Your task to perform on an android device: Add "logitech g502" to the cart on amazon, then select checkout. Image 0: 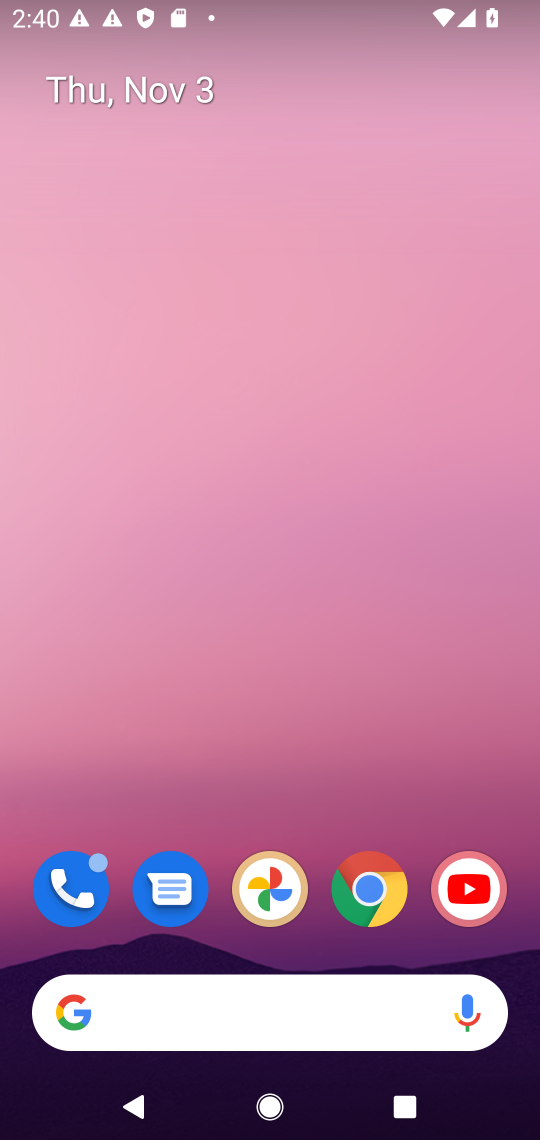
Step 0: click (367, 880)
Your task to perform on an android device: Add "logitech g502" to the cart on amazon, then select checkout. Image 1: 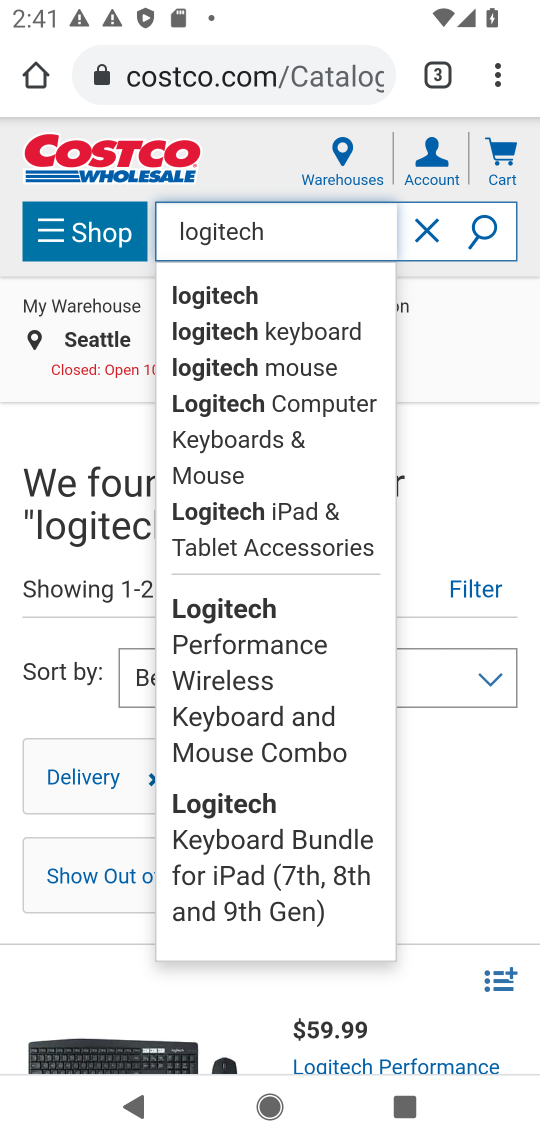
Step 1: click (426, 231)
Your task to perform on an android device: Add "logitech g502" to the cart on amazon, then select checkout. Image 2: 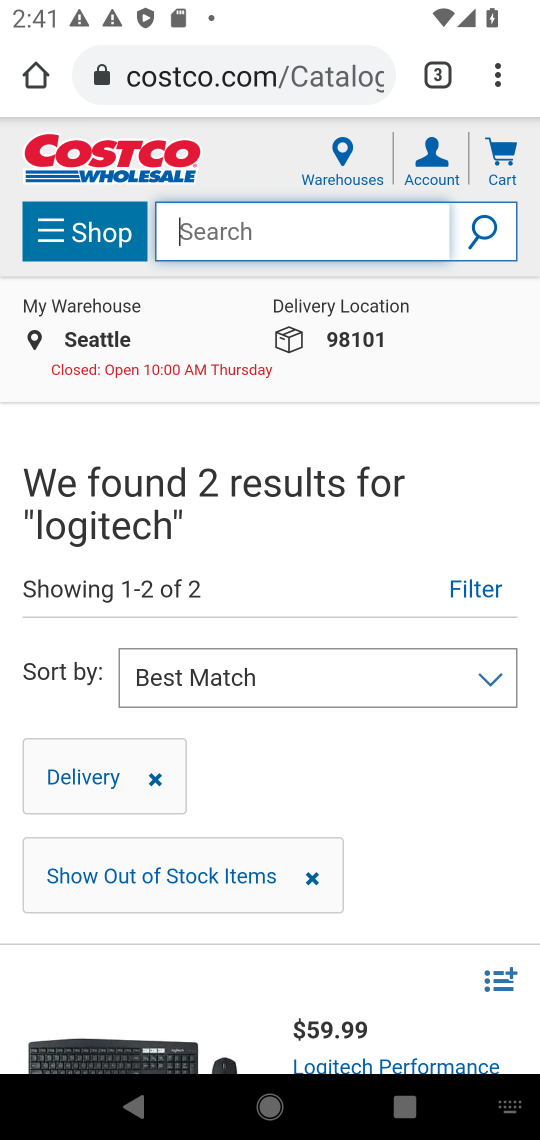
Step 2: click (261, 228)
Your task to perform on an android device: Add "logitech g502" to the cart on amazon, then select checkout. Image 3: 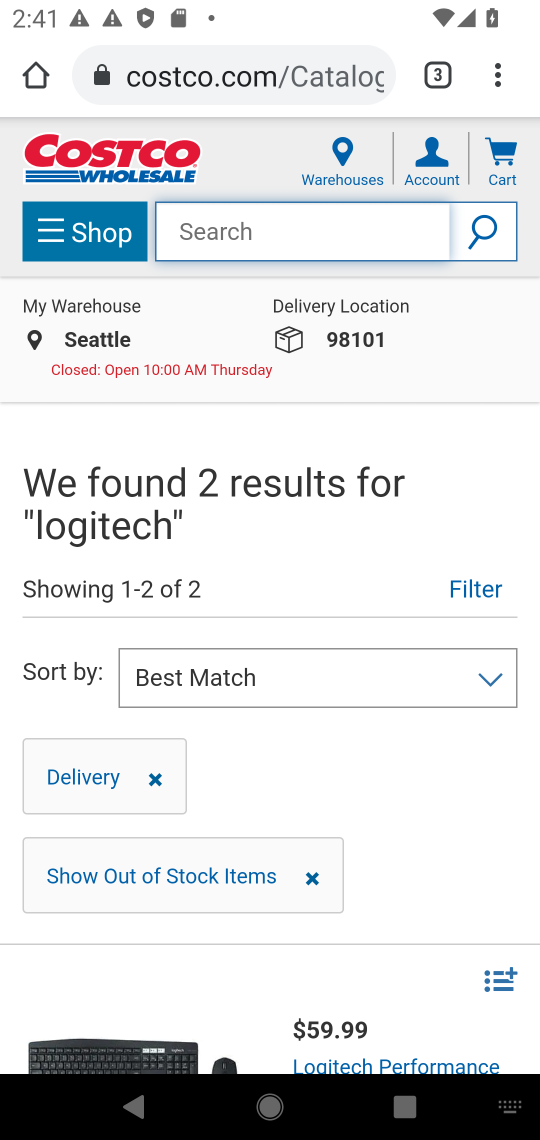
Step 3: type "amzon"
Your task to perform on an android device: Add "logitech g502" to the cart on amazon, then select checkout. Image 4: 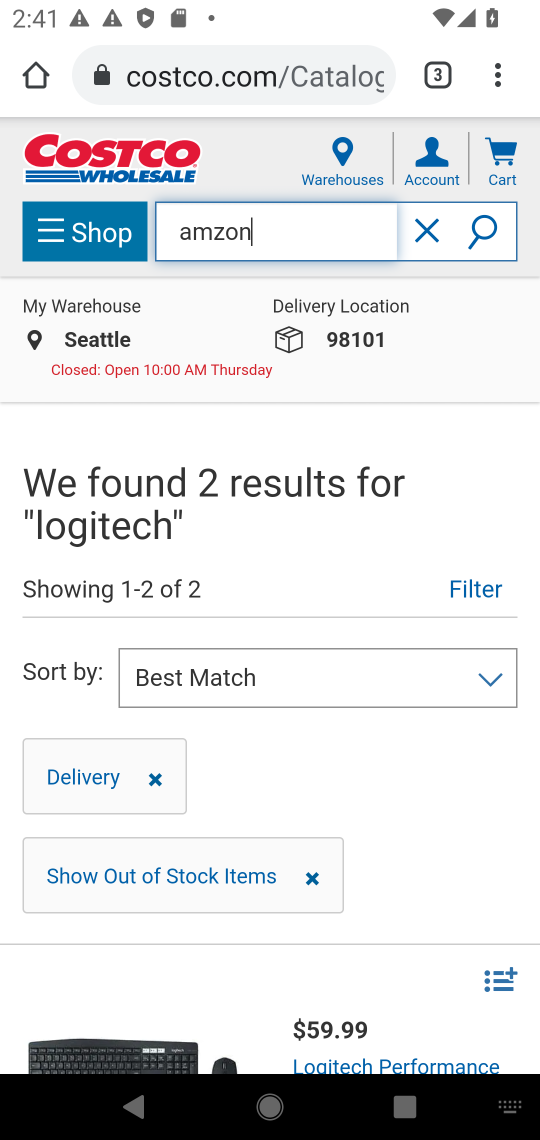
Step 4: click (448, 77)
Your task to perform on an android device: Add "logitech g502" to the cart on amazon, then select checkout. Image 5: 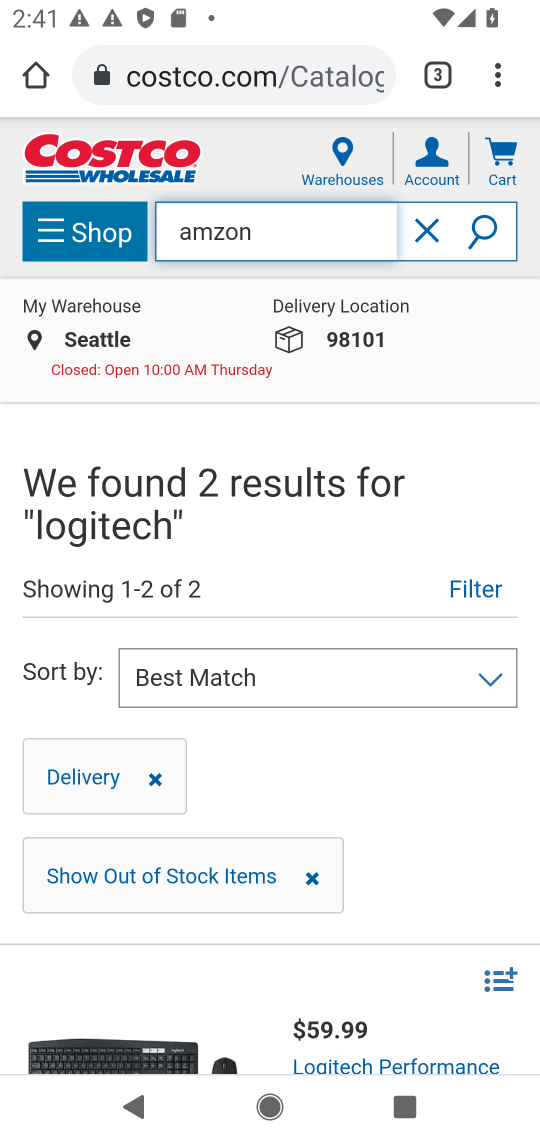
Step 5: click (432, 74)
Your task to perform on an android device: Add "logitech g502" to the cart on amazon, then select checkout. Image 6: 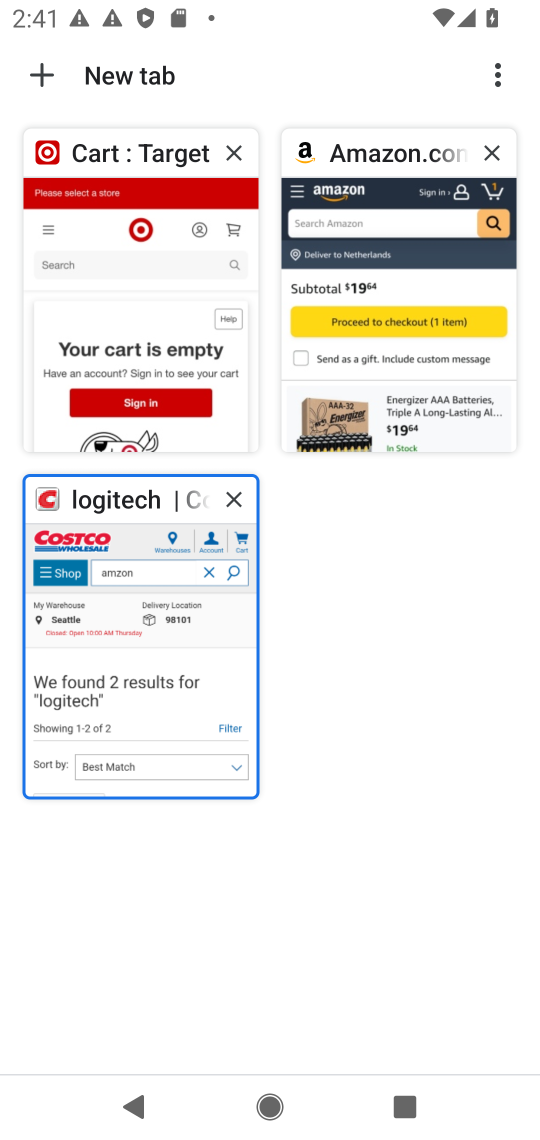
Step 6: click (47, 68)
Your task to perform on an android device: Add "logitech g502" to the cart on amazon, then select checkout. Image 7: 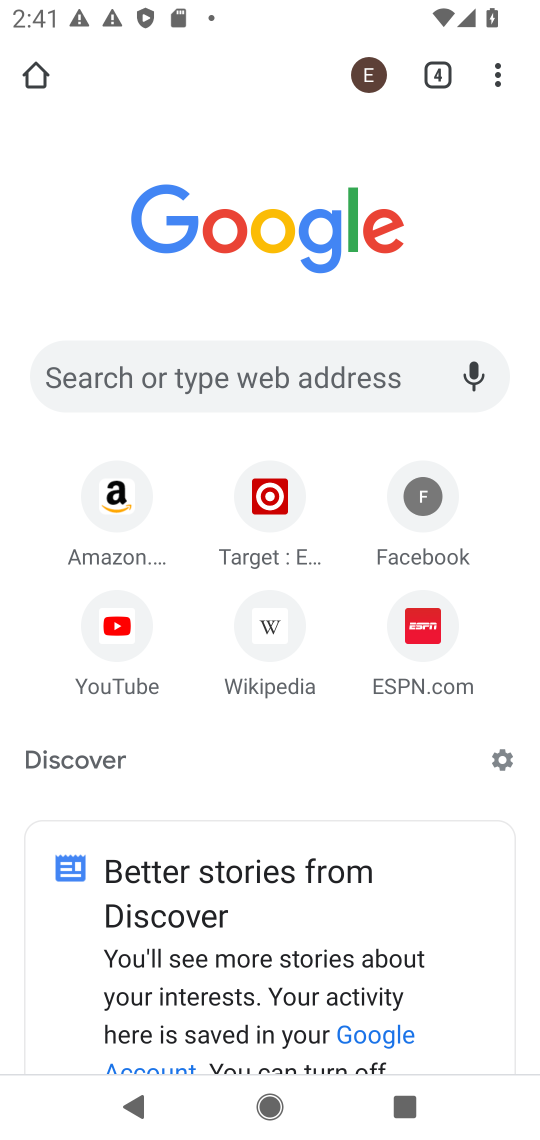
Step 7: click (154, 393)
Your task to perform on an android device: Add "logitech g502" to the cart on amazon, then select checkout. Image 8: 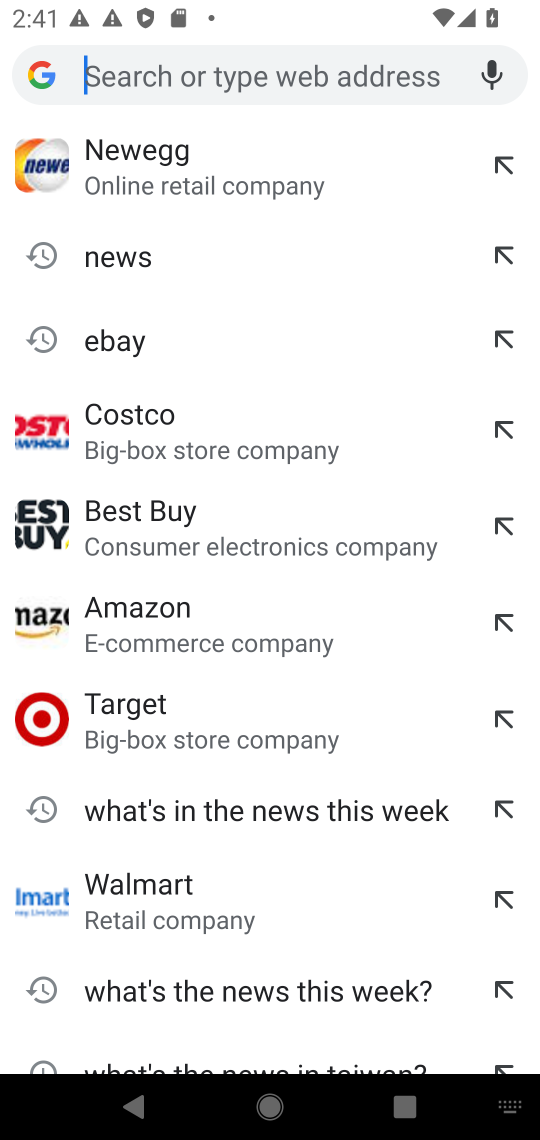
Step 8: click (173, 616)
Your task to perform on an android device: Add "logitech g502" to the cart on amazon, then select checkout. Image 9: 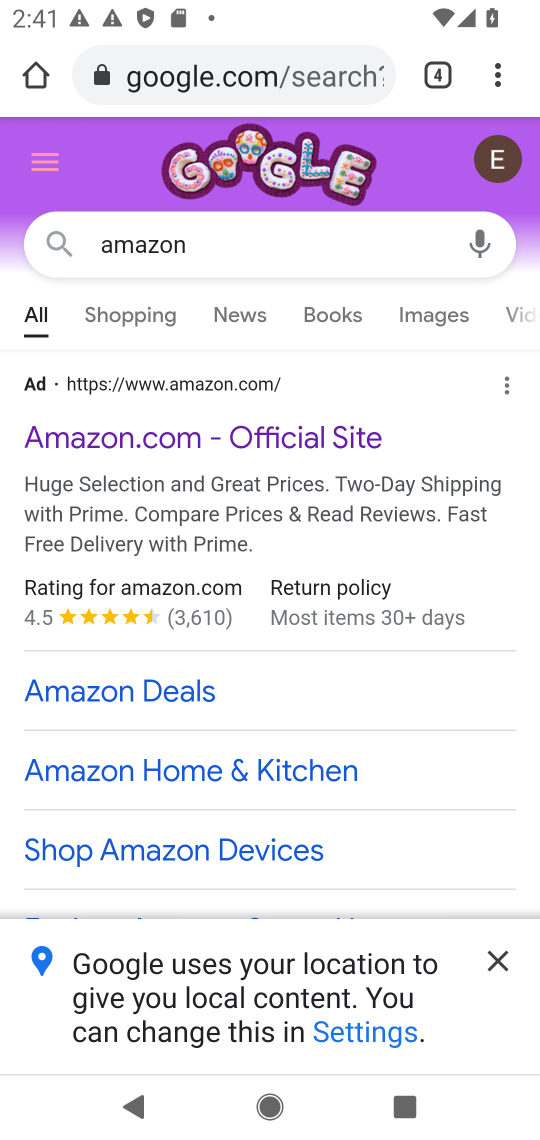
Step 9: click (186, 428)
Your task to perform on an android device: Add "logitech g502" to the cart on amazon, then select checkout. Image 10: 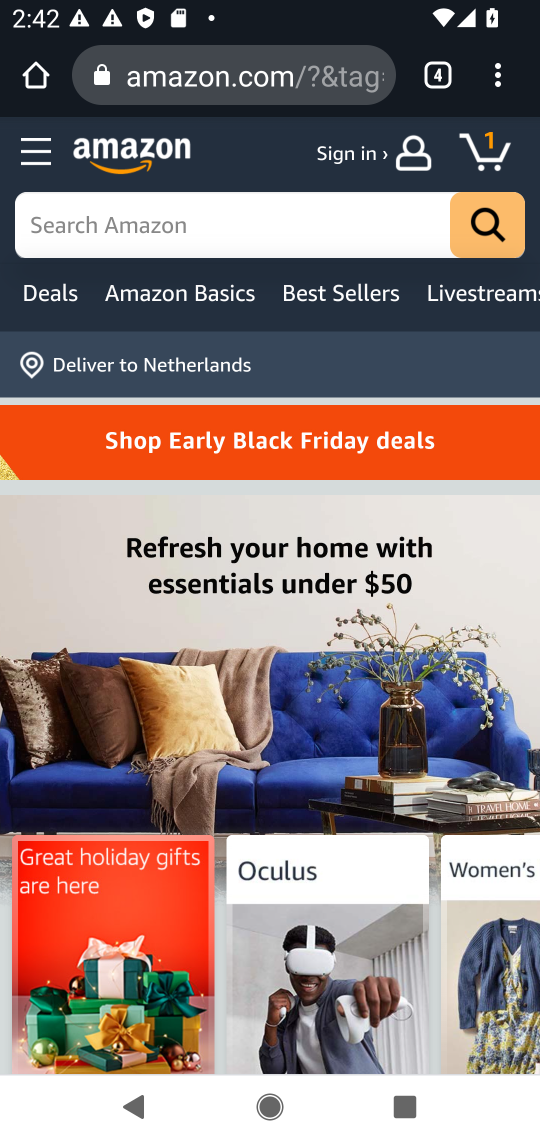
Step 10: click (197, 235)
Your task to perform on an android device: Add "logitech g502" to the cart on amazon, then select checkout. Image 11: 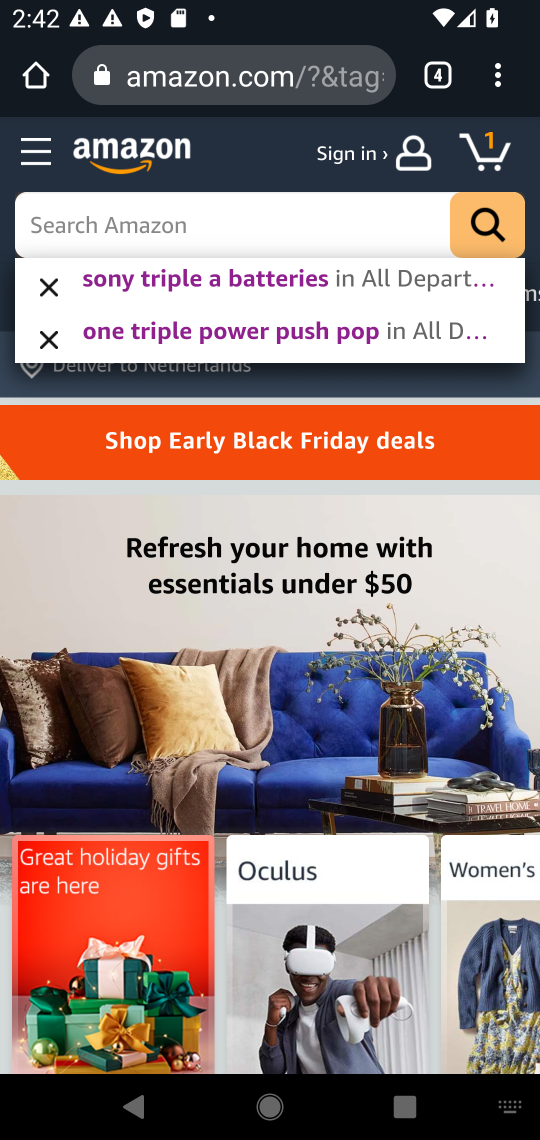
Step 11: type "logitech g502"
Your task to perform on an android device: Add "logitech g502" to the cart on amazon, then select checkout. Image 12: 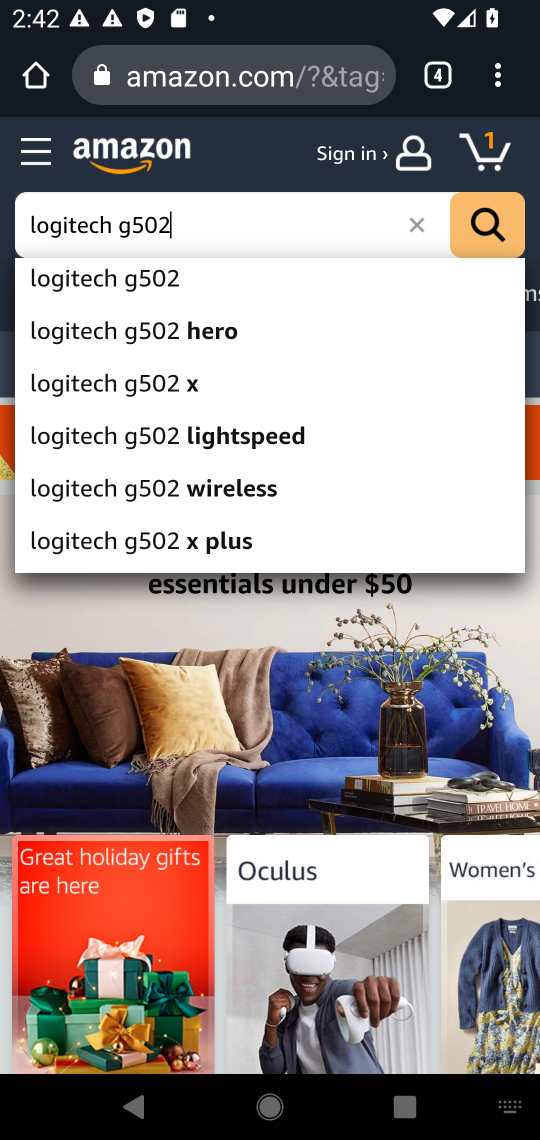
Step 12: click (209, 271)
Your task to perform on an android device: Add "logitech g502" to the cart on amazon, then select checkout. Image 13: 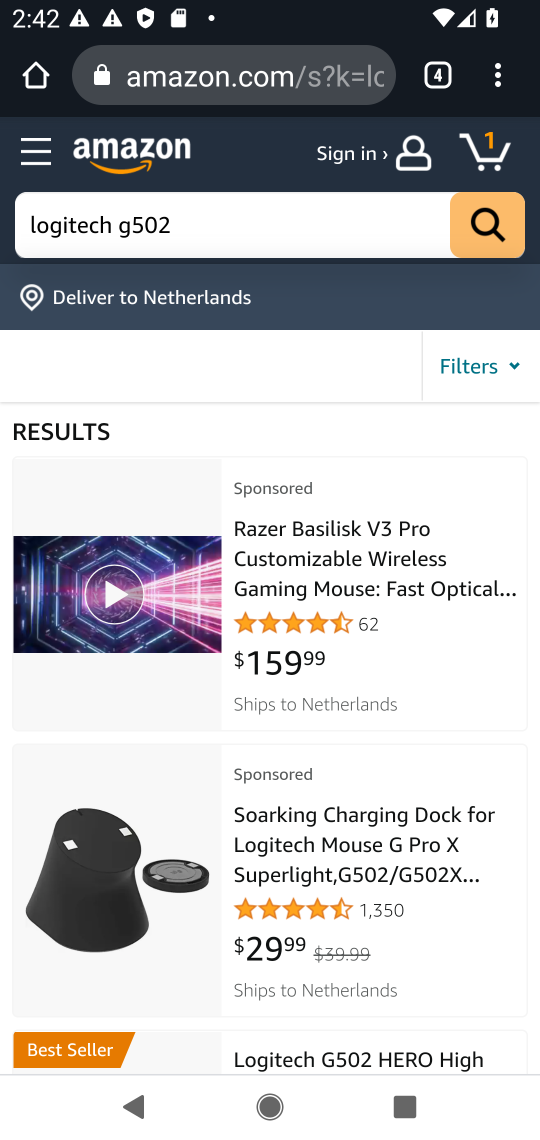
Step 13: drag from (369, 997) to (332, 423)
Your task to perform on an android device: Add "logitech g502" to the cart on amazon, then select checkout. Image 14: 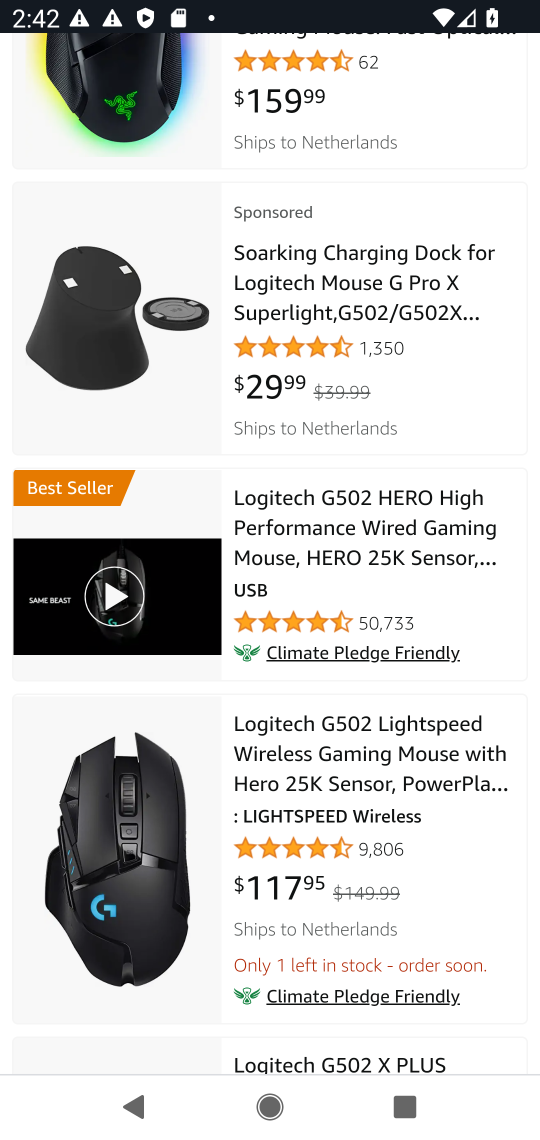
Step 14: click (166, 547)
Your task to perform on an android device: Add "logitech g502" to the cart on amazon, then select checkout. Image 15: 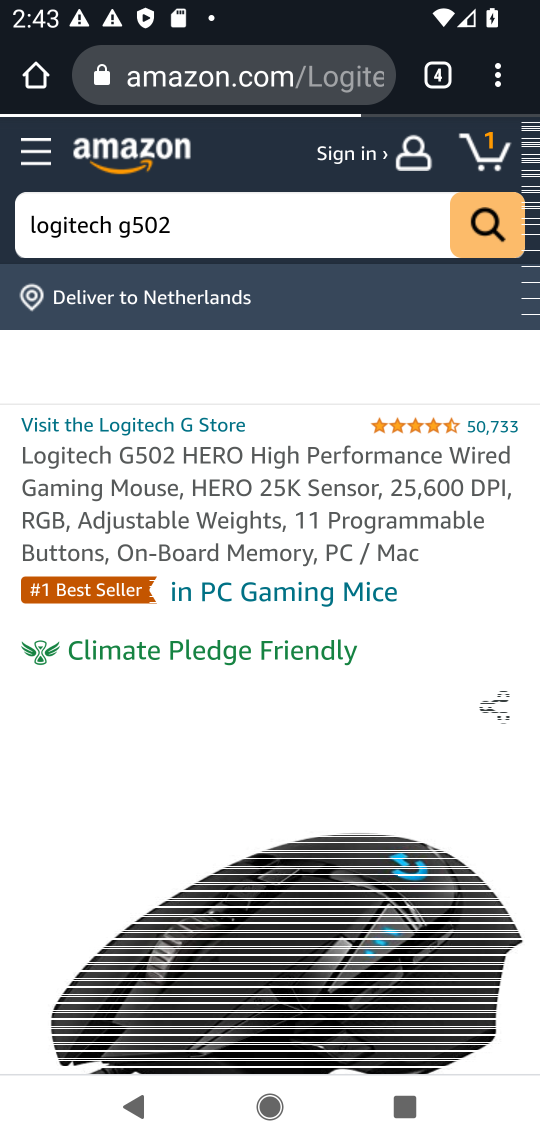
Step 15: drag from (289, 923) to (379, 234)
Your task to perform on an android device: Add "logitech g502" to the cart on amazon, then select checkout. Image 16: 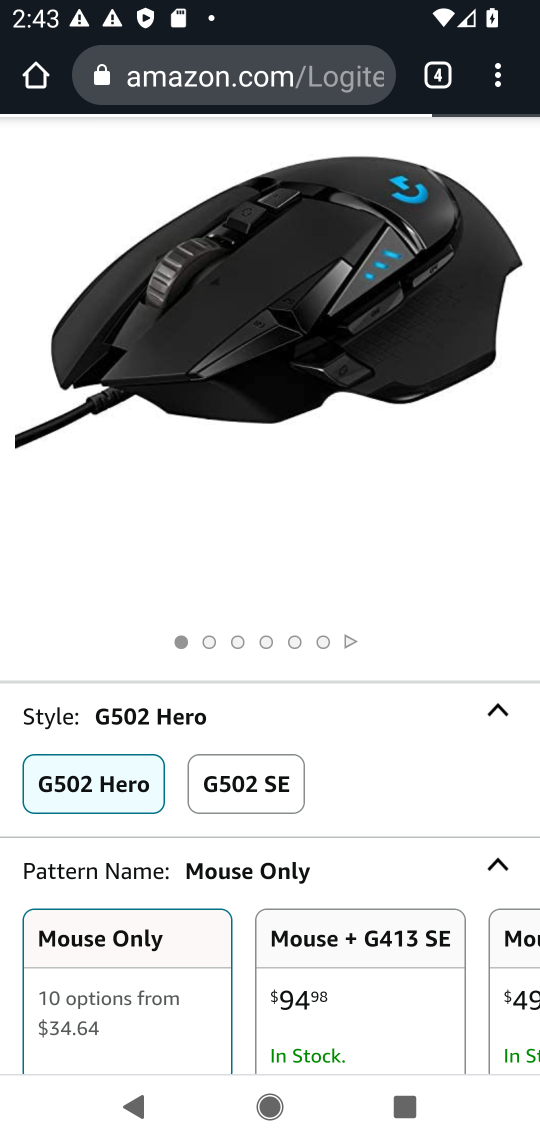
Step 16: drag from (268, 1003) to (327, 252)
Your task to perform on an android device: Add "logitech g502" to the cart on amazon, then select checkout. Image 17: 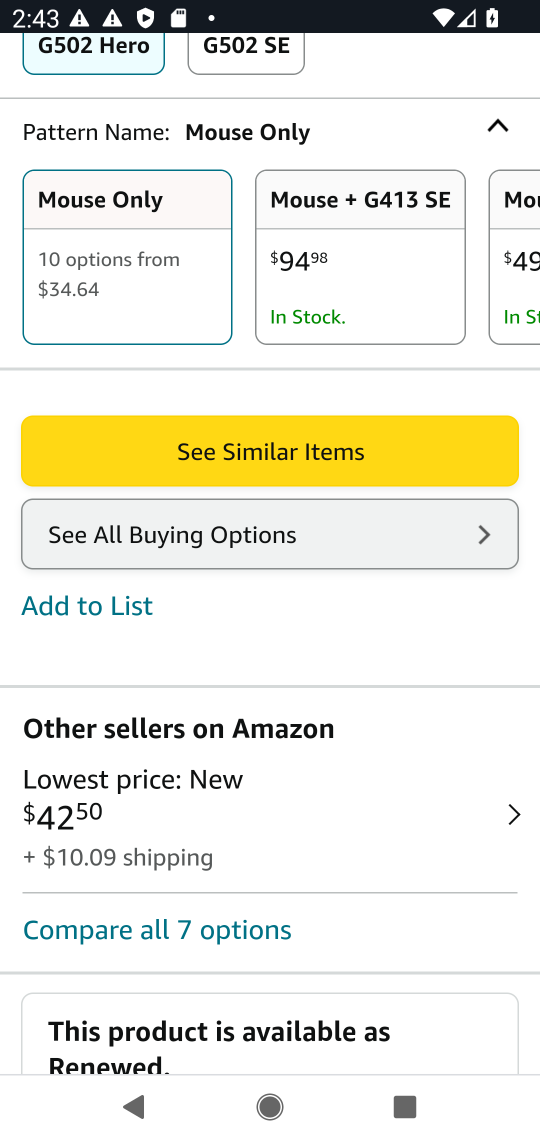
Step 17: click (120, 261)
Your task to perform on an android device: Add "logitech g502" to the cart on amazon, then select checkout. Image 18: 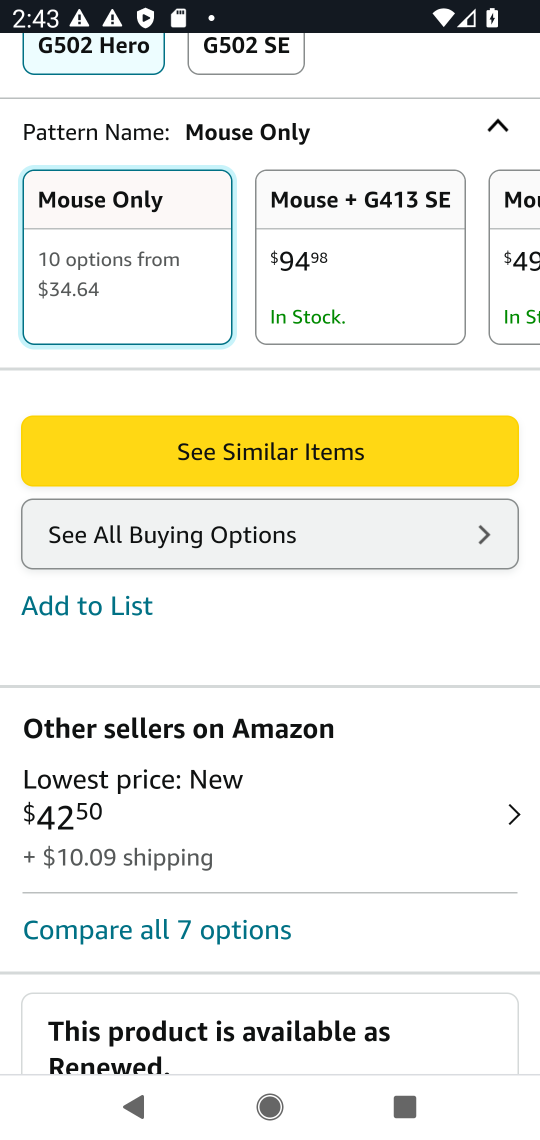
Step 18: drag from (411, 385) to (327, 421)
Your task to perform on an android device: Add "logitech g502" to the cart on amazon, then select checkout. Image 19: 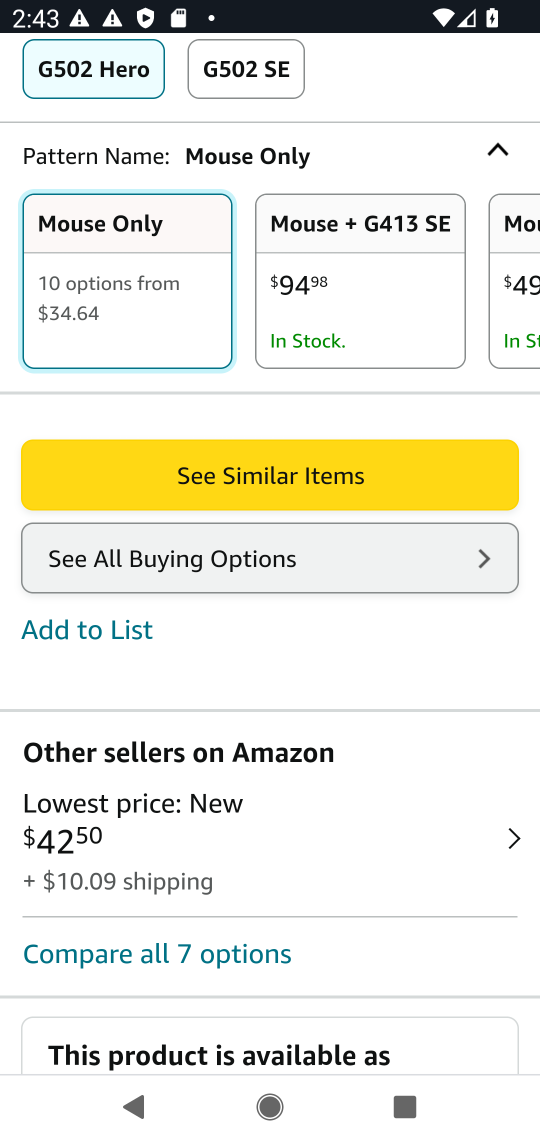
Step 19: drag from (252, 906) to (314, 227)
Your task to perform on an android device: Add "logitech g502" to the cart on amazon, then select checkout. Image 20: 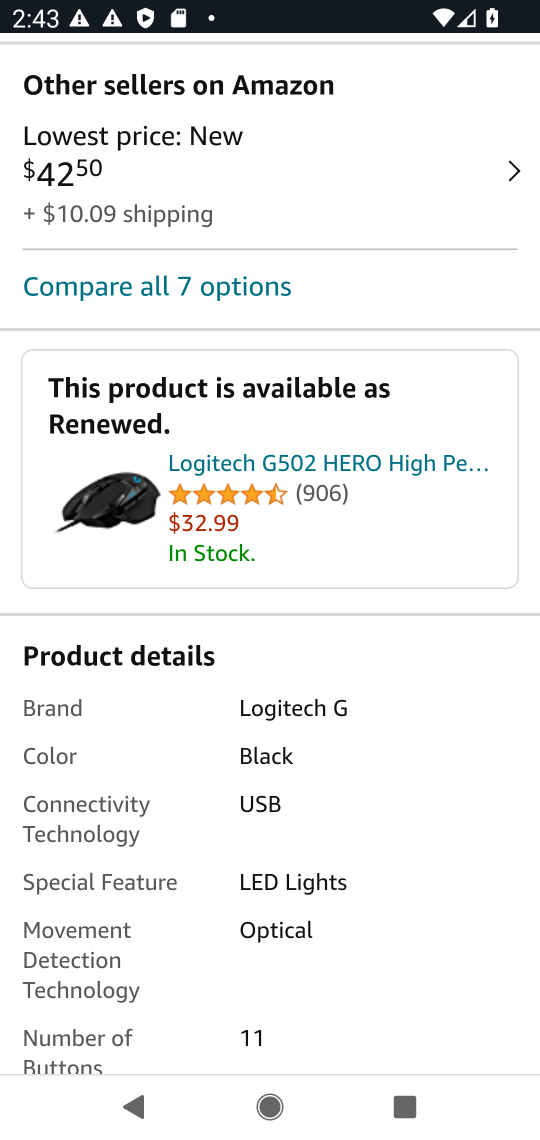
Step 20: drag from (321, 1046) to (338, 187)
Your task to perform on an android device: Add "logitech g502" to the cart on amazon, then select checkout. Image 21: 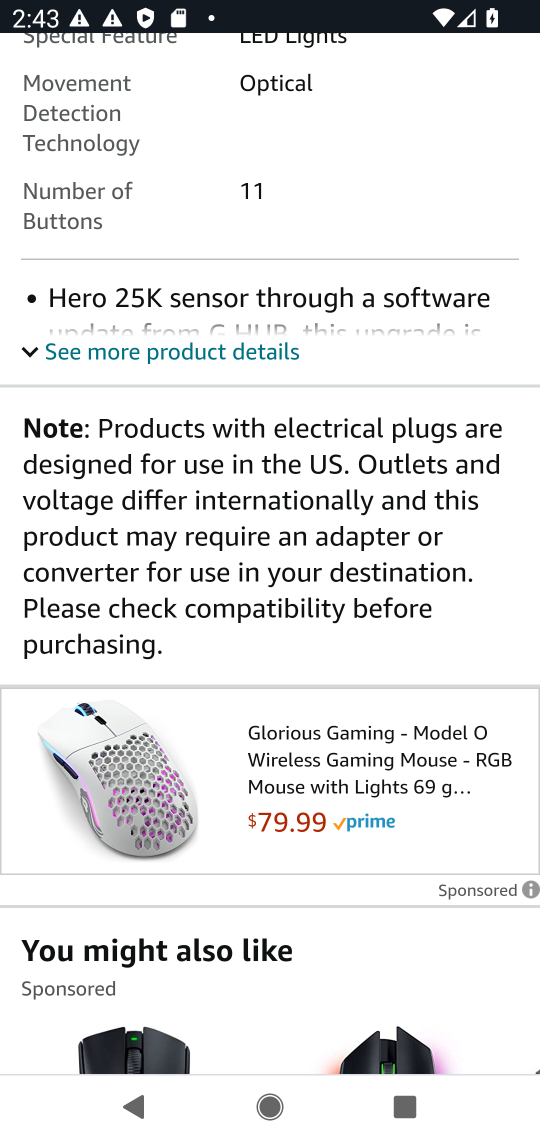
Step 21: drag from (351, 724) to (431, 141)
Your task to perform on an android device: Add "logitech g502" to the cart on amazon, then select checkout. Image 22: 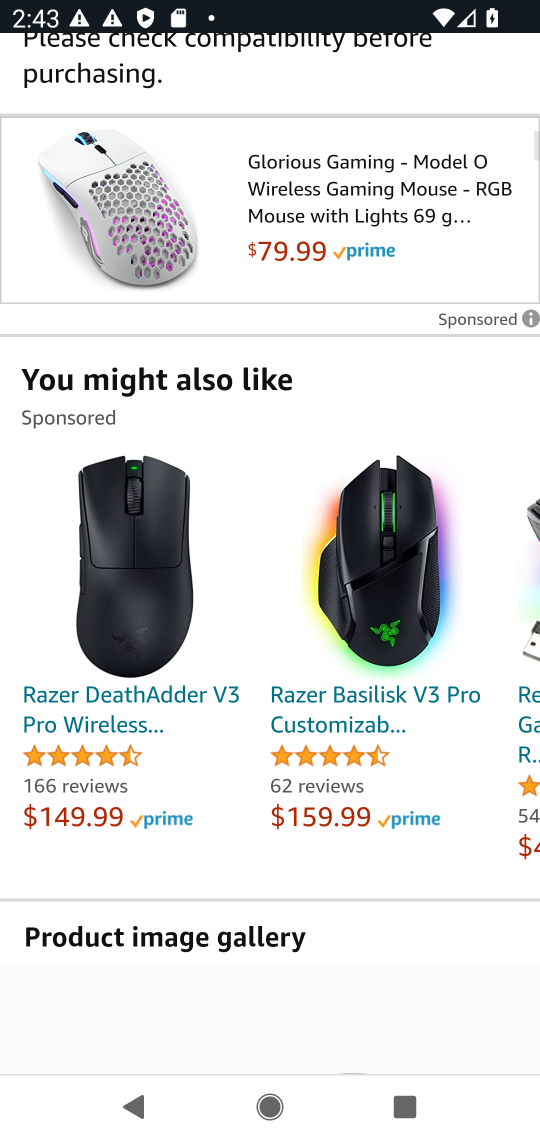
Step 22: drag from (335, 951) to (390, 62)
Your task to perform on an android device: Add "logitech g502" to the cart on amazon, then select checkout. Image 23: 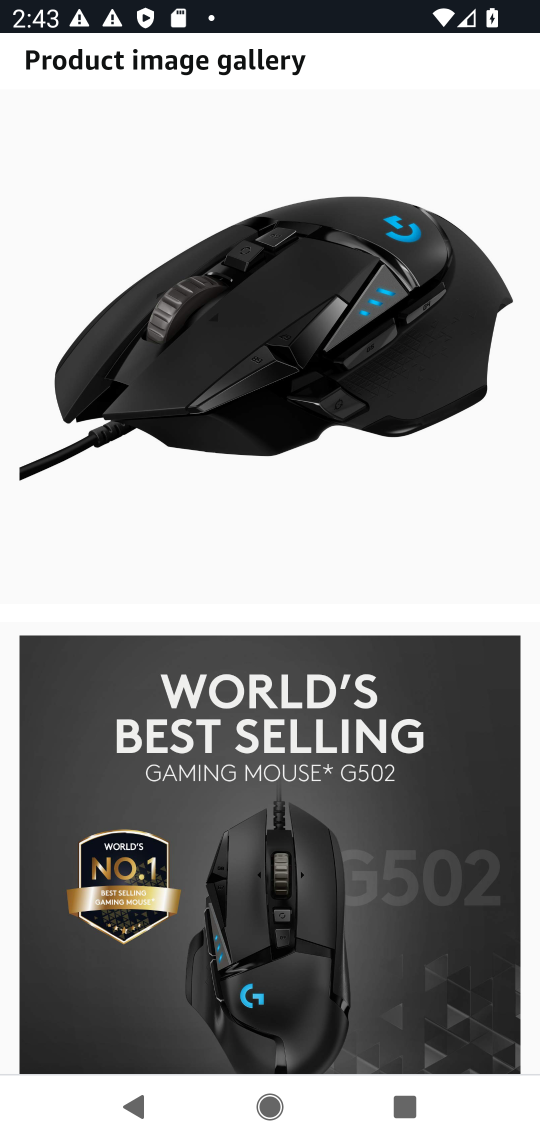
Step 23: drag from (237, 1095) to (416, 195)
Your task to perform on an android device: Add "logitech g502" to the cart on amazon, then select checkout. Image 24: 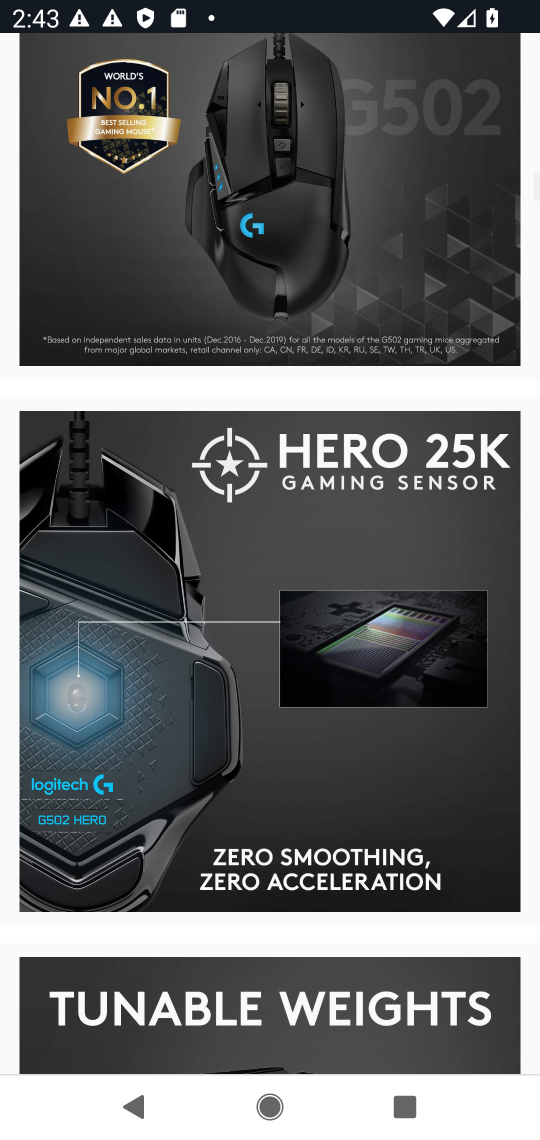
Step 24: drag from (335, 706) to (328, 238)
Your task to perform on an android device: Add "logitech g502" to the cart on amazon, then select checkout. Image 25: 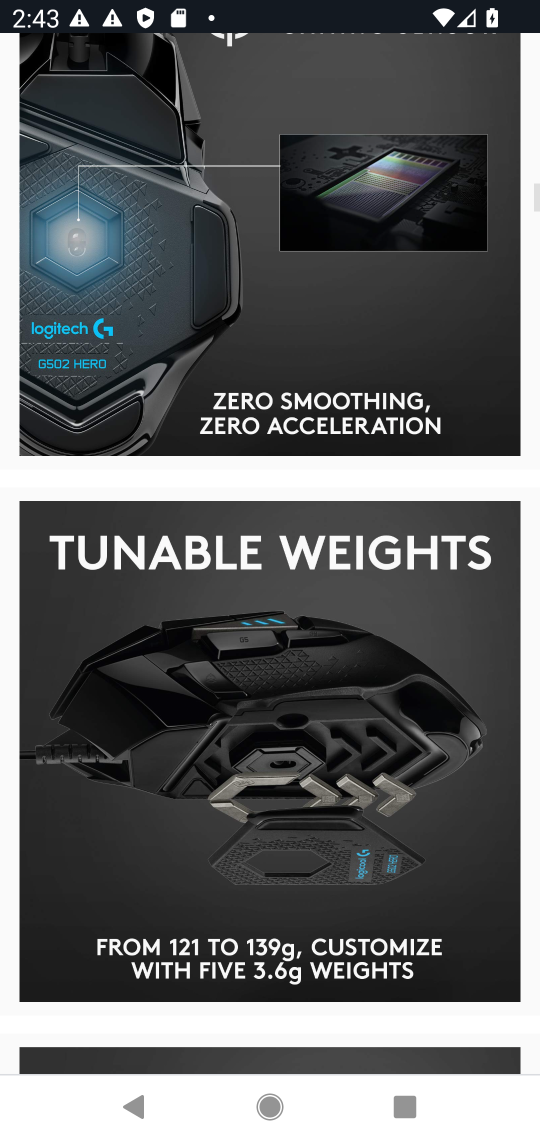
Step 25: drag from (240, 935) to (352, 273)
Your task to perform on an android device: Add "logitech g502" to the cart on amazon, then select checkout. Image 26: 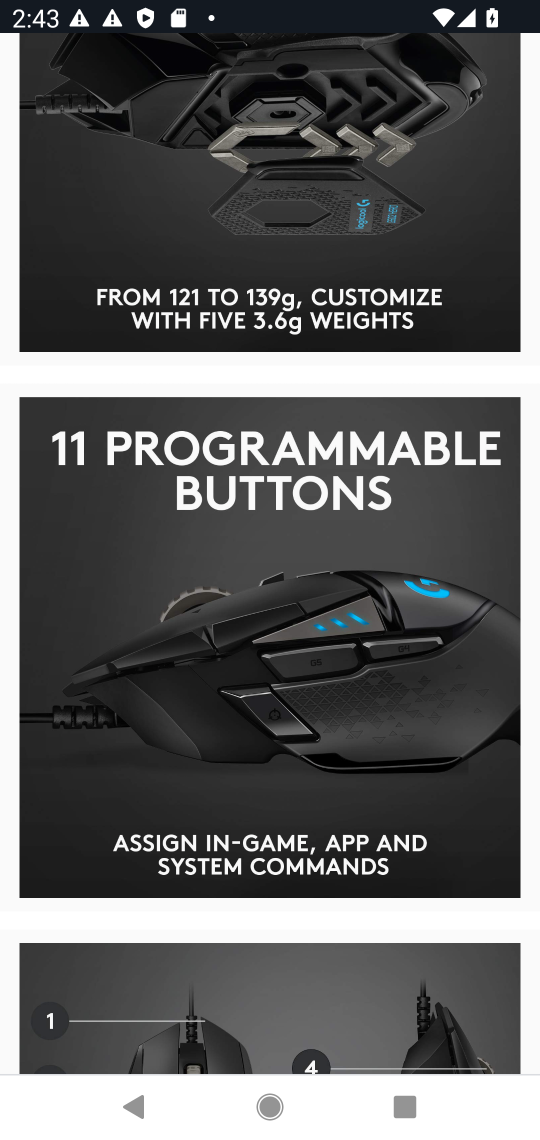
Step 26: drag from (278, 999) to (321, 179)
Your task to perform on an android device: Add "logitech g502" to the cart on amazon, then select checkout. Image 27: 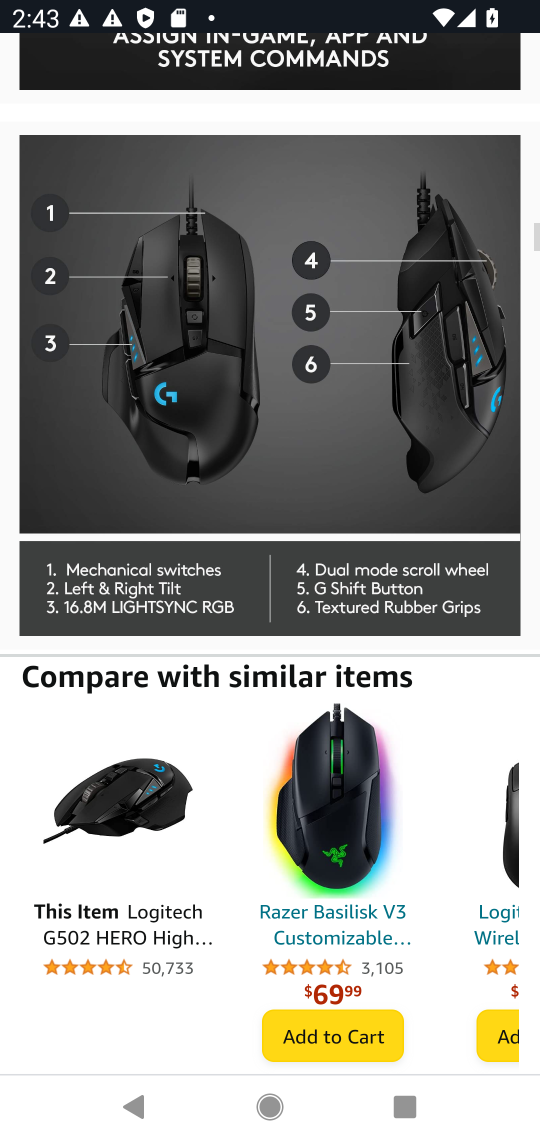
Step 27: drag from (265, 921) to (365, 158)
Your task to perform on an android device: Add "logitech g502" to the cart on amazon, then select checkout. Image 28: 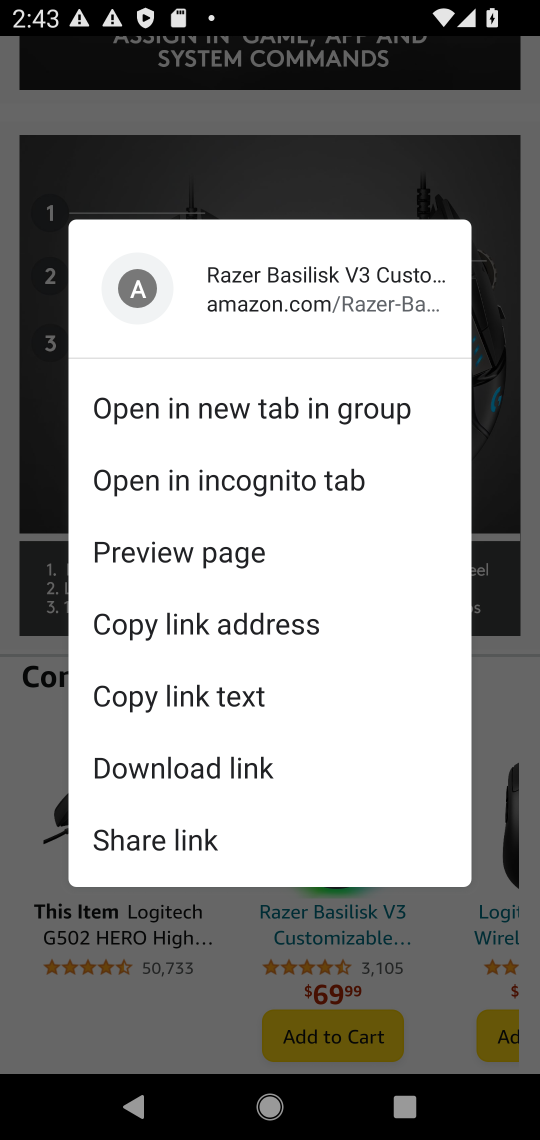
Step 28: click (360, 122)
Your task to perform on an android device: Add "logitech g502" to the cart on amazon, then select checkout. Image 29: 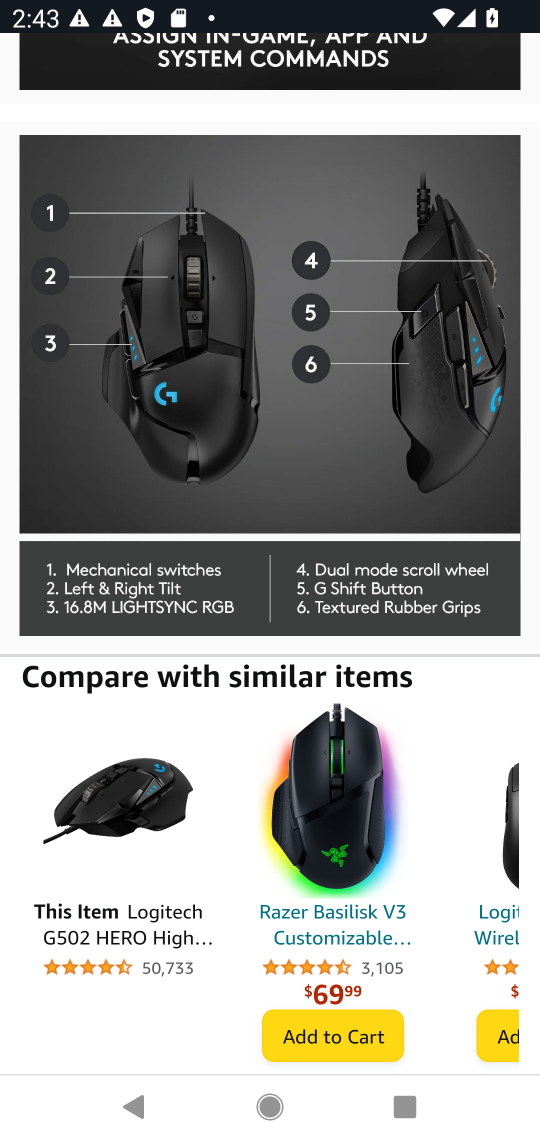
Step 29: drag from (323, 528) to (323, 858)
Your task to perform on an android device: Add "logitech g502" to the cart on amazon, then select checkout. Image 30: 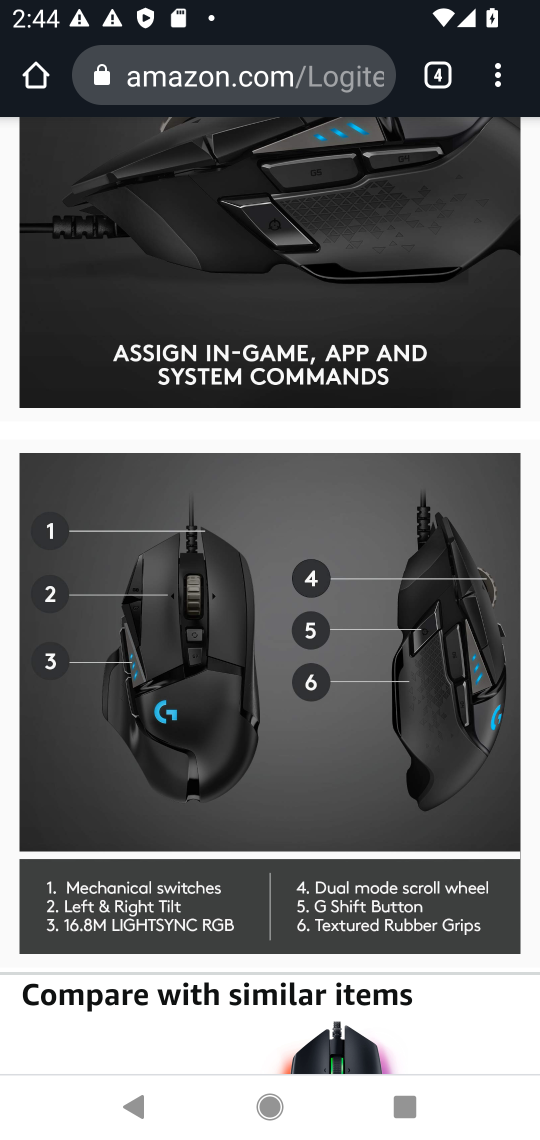
Step 30: drag from (354, 513) to (336, 1009)
Your task to perform on an android device: Add "logitech g502" to the cart on amazon, then select checkout. Image 31: 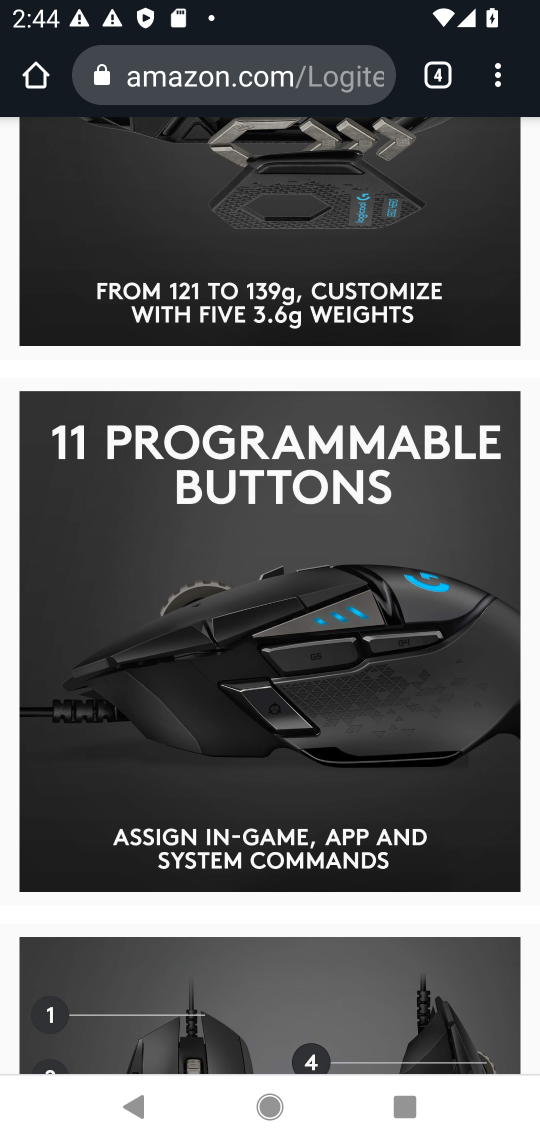
Step 31: drag from (308, 224) to (239, 1020)
Your task to perform on an android device: Add "logitech g502" to the cart on amazon, then select checkout. Image 32: 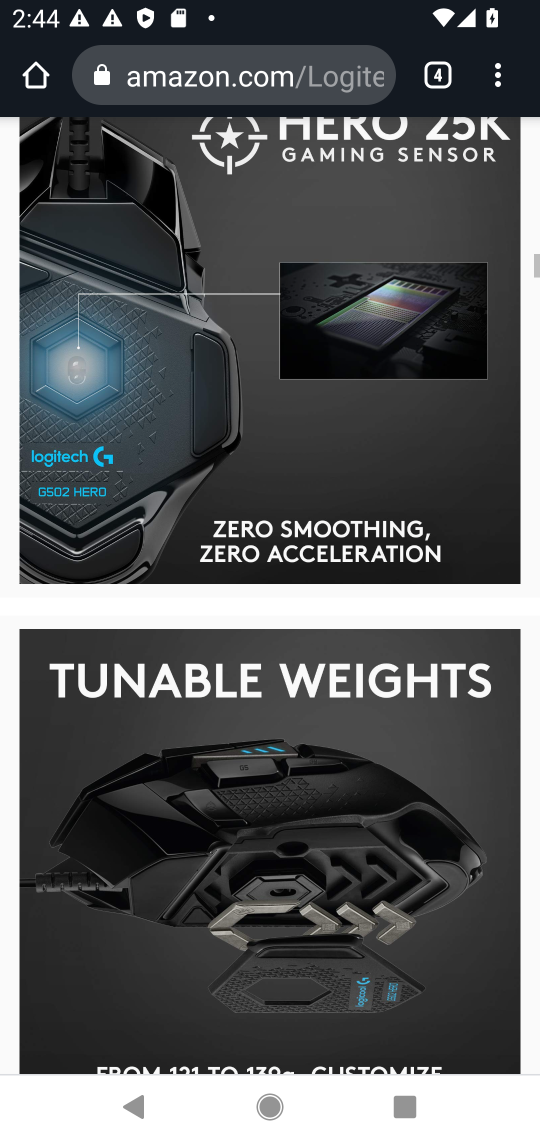
Step 32: drag from (248, 586) to (217, 1106)
Your task to perform on an android device: Add "logitech g502" to the cart on amazon, then select checkout. Image 33: 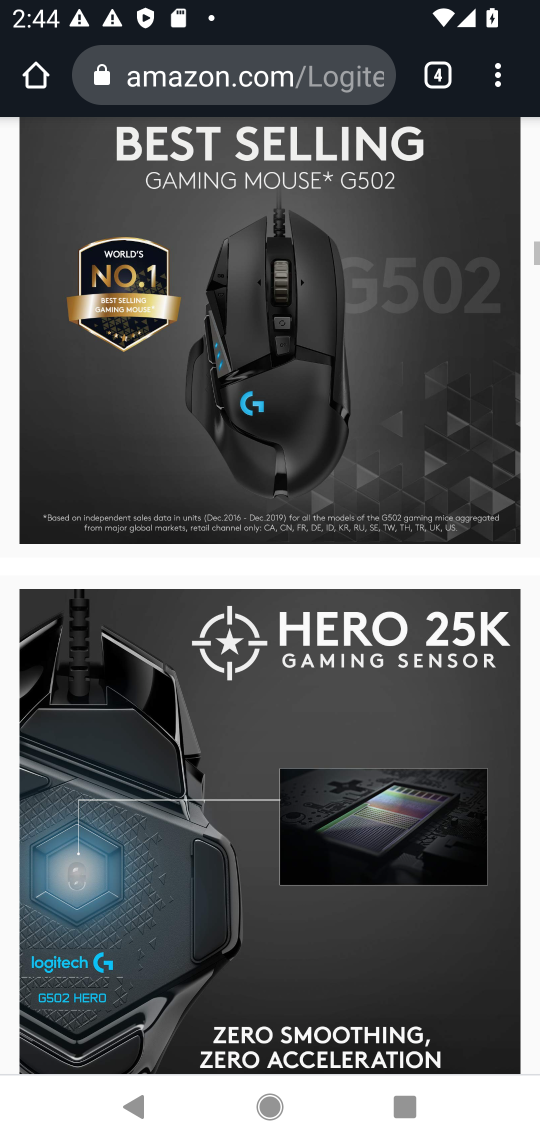
Step 33: drag from (311, 368) to (301, 1047)
Your task to perform on an android device: Add "logitech g502" to the cart on amazon, then select checkout. Image 34: 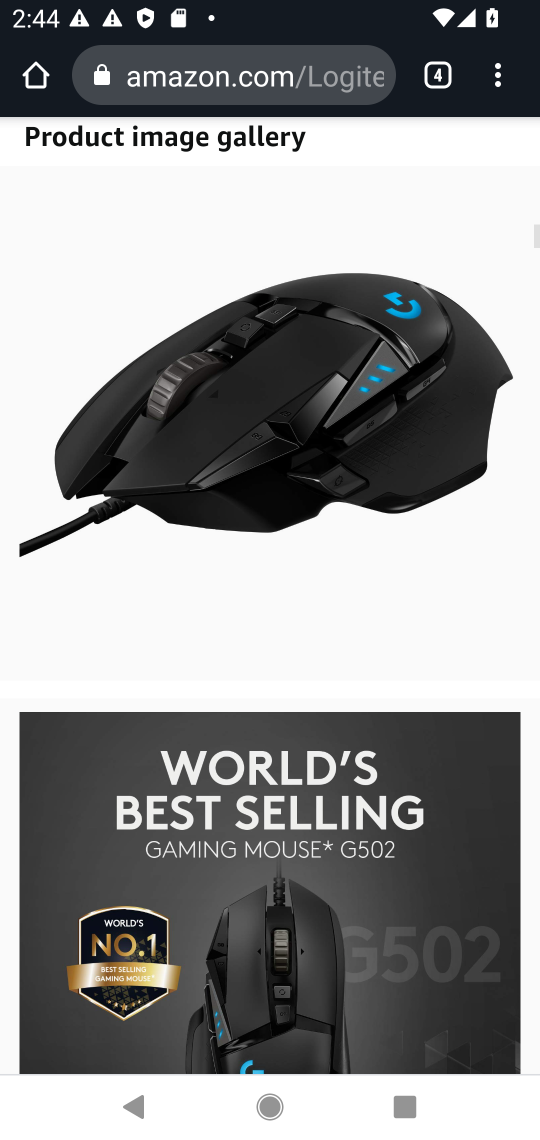
Step 34: drag from (249, 552) to (234, 1003)
Your task to perform on an android device: Add "logitech g502" to the cart on amazon, then select checkout. Image 35: 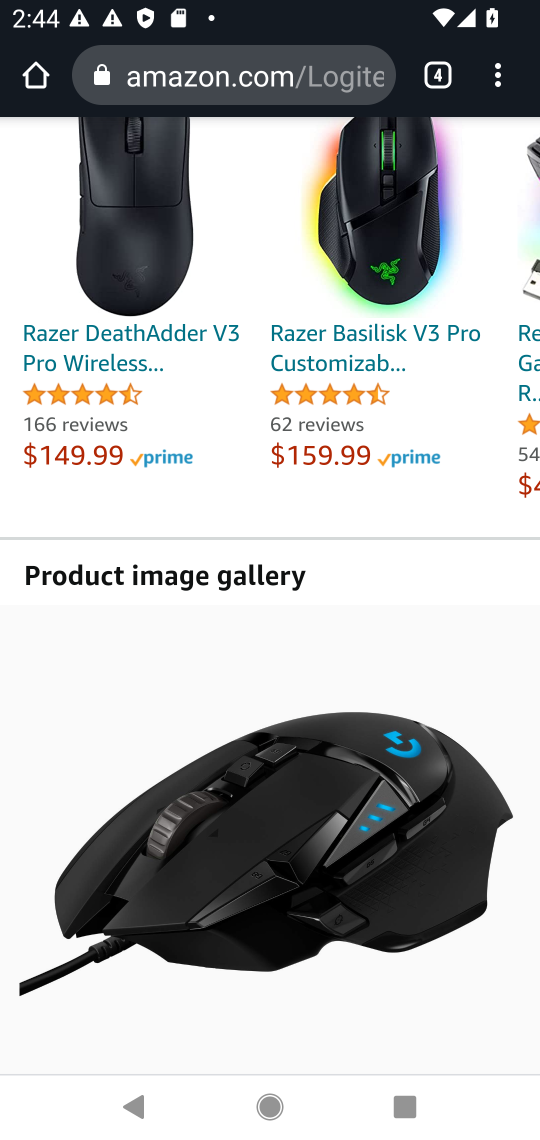
Step 35: drag from (293, 522) to (271, 995)
Your task to perform on an android device: Add "logitech g502" to the cart on amazon, then select checkout. Image 36: 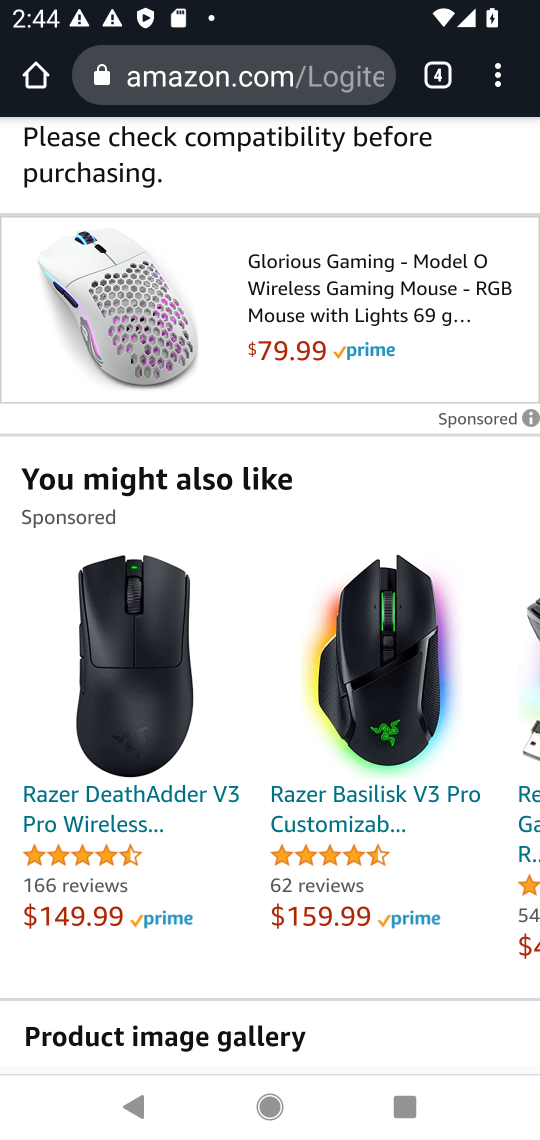
Step 36: drag from (288, 322) to (267, 1138)
Your task to perform on an android device: Add "logitech g502" to the cart on amazon, then select checkout. Image 37: 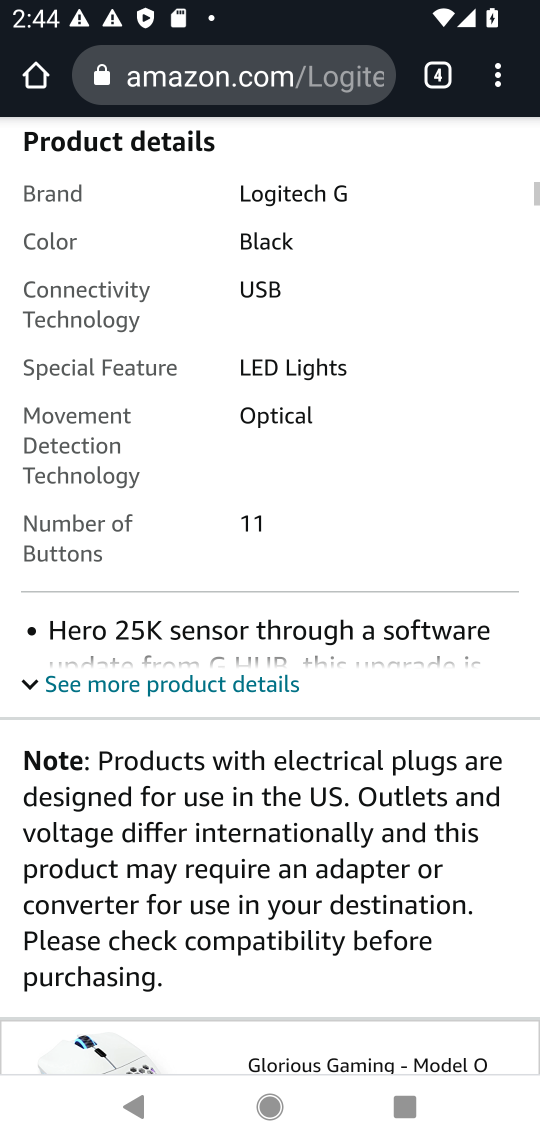
Step 37: drag from (265, 280) to (212, 1109)
Your task to perform on an android device: Add "logitech g502" to the cart on amazon, then select checkout. Image 38: 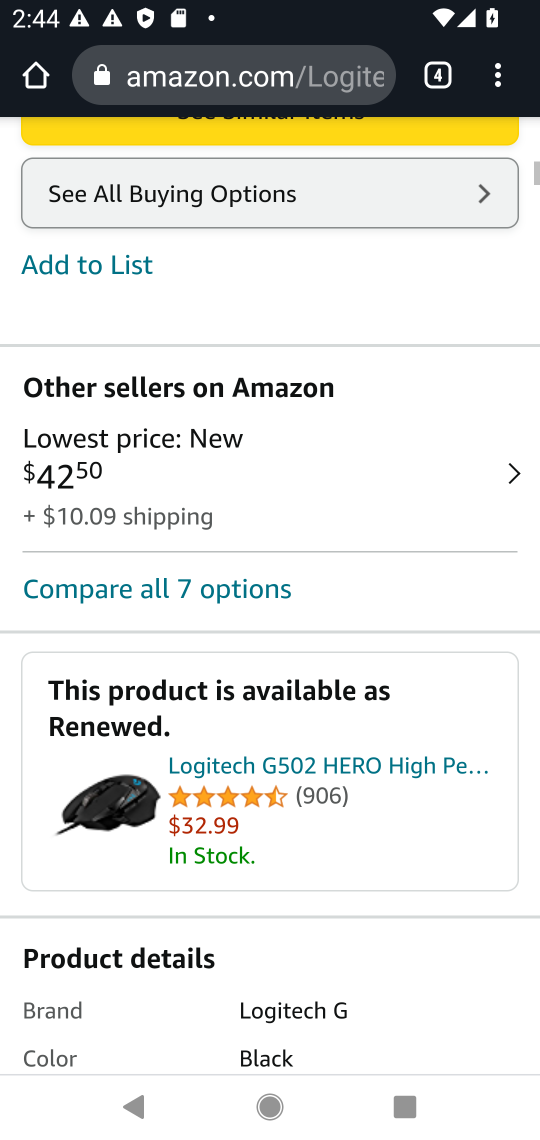
Step 38: drag from (226, 316) to (193, 1066)
Your task to perform on an android device: Add "logitech g502" to the cart on amazon, then select checkout. Image 39: 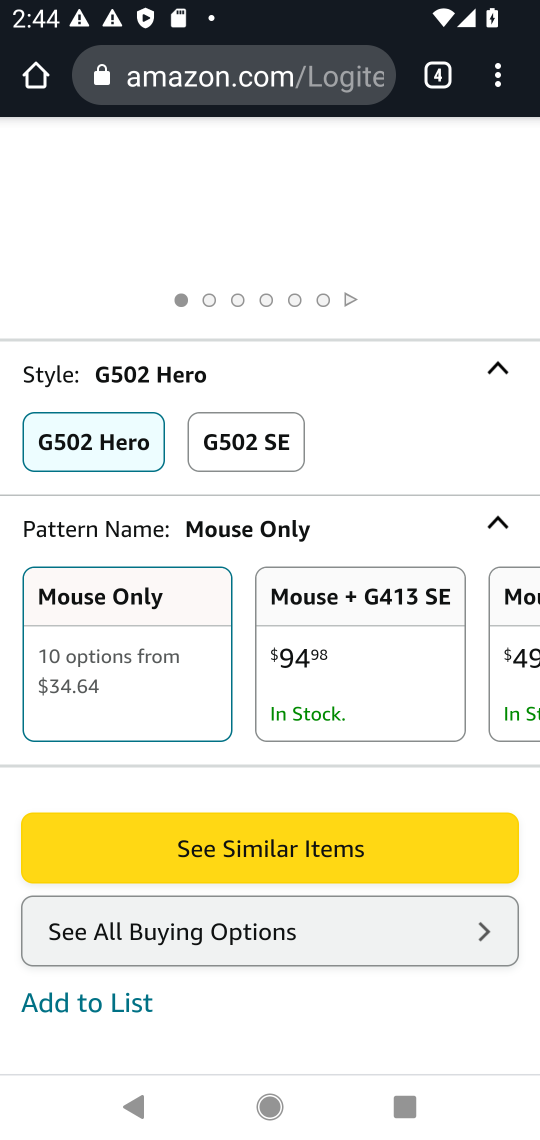
Step 39: click (320, 673)
Your task to perform on an android device: Add "logitech g502" to the cart on amazon, then select checkout. Image 40: 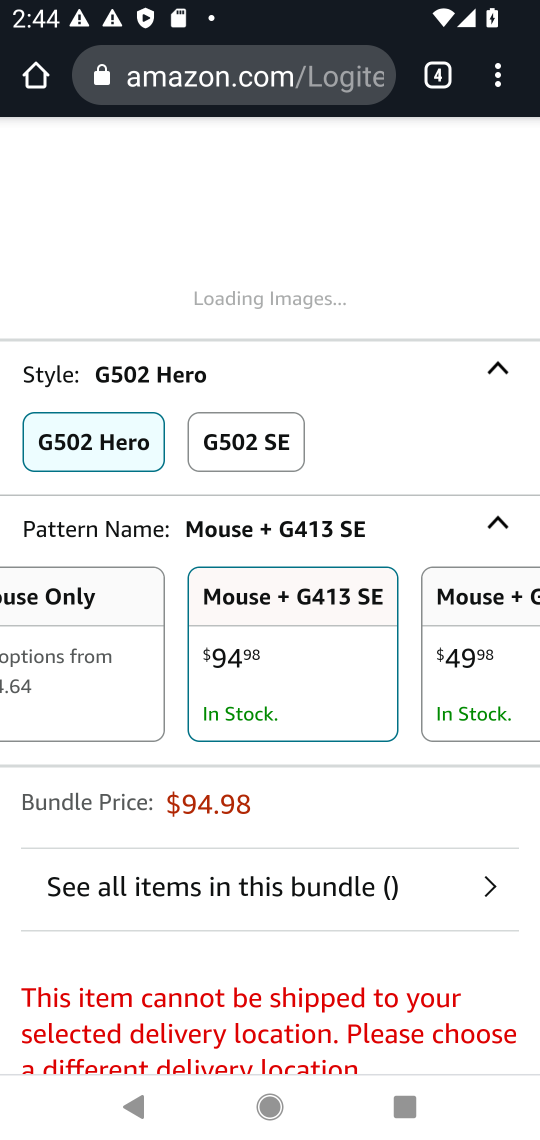
Step 40: drag from (323, 741) to (270, 1130)
Your task to perform on an android device: Add "logitech g502" to the cart on amazon, then select checkout. Image 41: 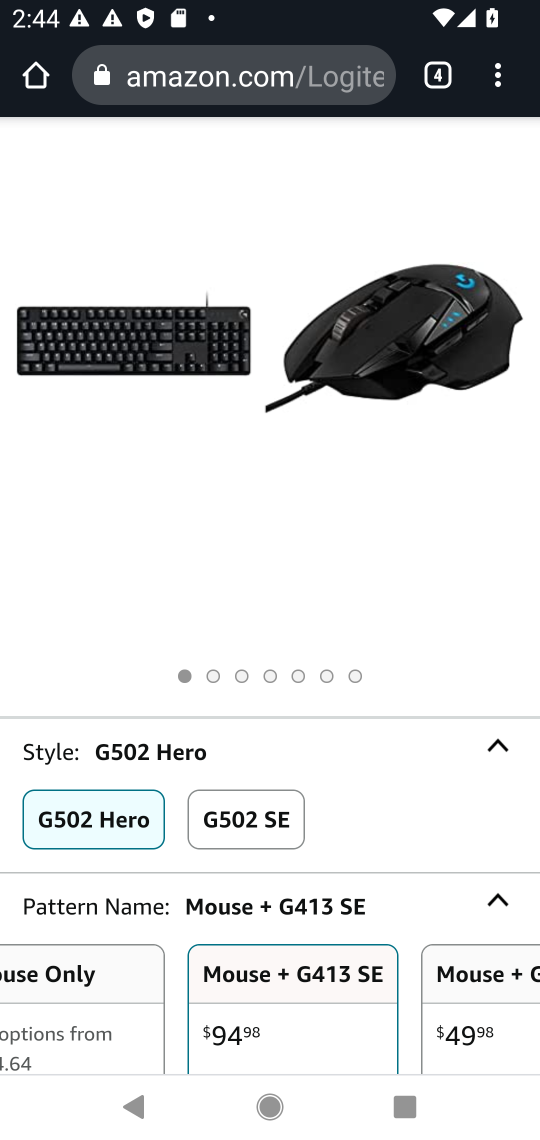
Step 41: drag from (343, 204) to (313, 1133)
Your task to perform on an android device: Add "logitech g502" to the cart on amazon, then select checkout. Image 42: 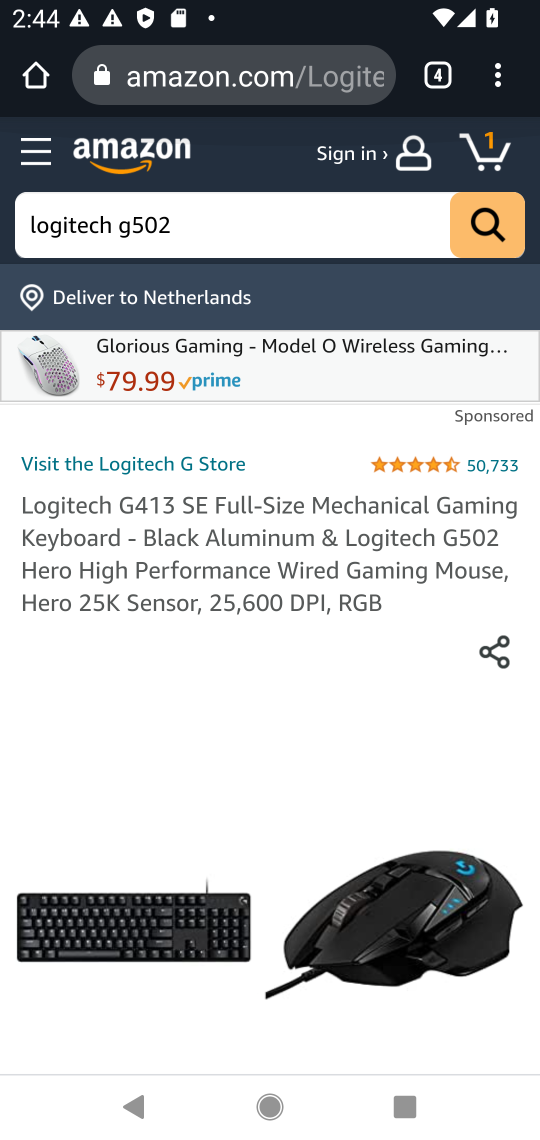
Step 42: drag from (285, 962) to (285, 330)
Your task to perform on an android device: Add "logitech g502" to the cart on amazon, then select checkout. Image 43: 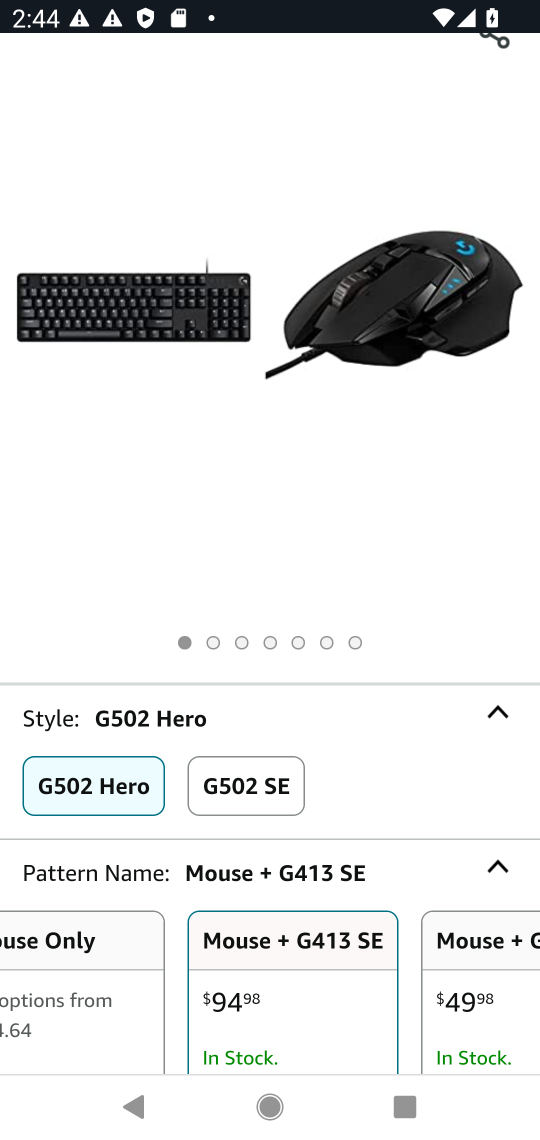
Step 43: drag from (280, 897) to (327, 363)
Your task to perform on an android device: Add "logitech g502" to the cart on amazon, then select checkout. Image 44: 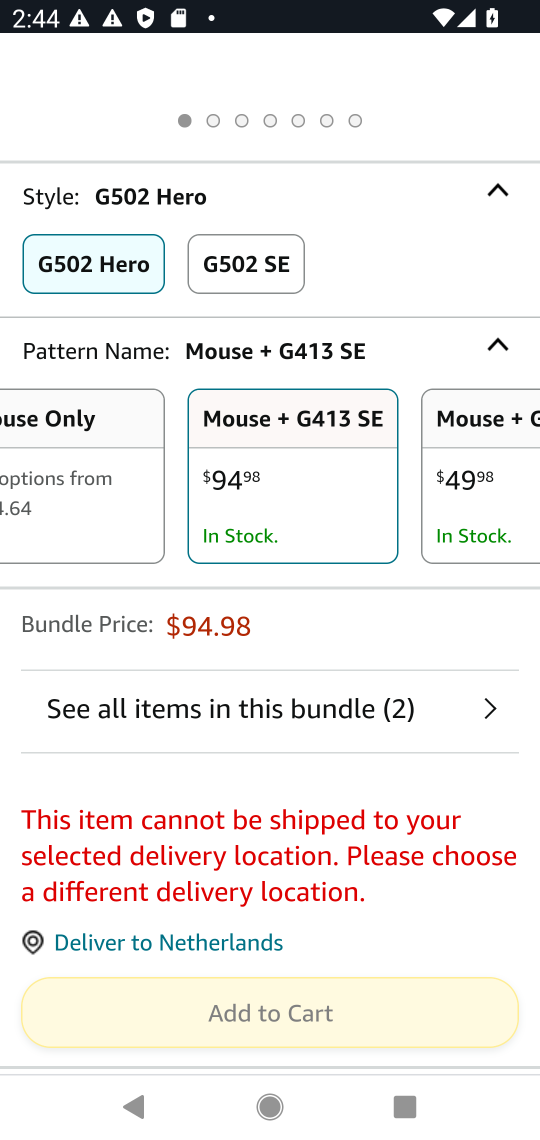
Step 44: drag from (300, 996) to (362, 591)
Your task to perform on an android device: Add "logitech g502" to the cart on amazon, then select checkout. Image 45: 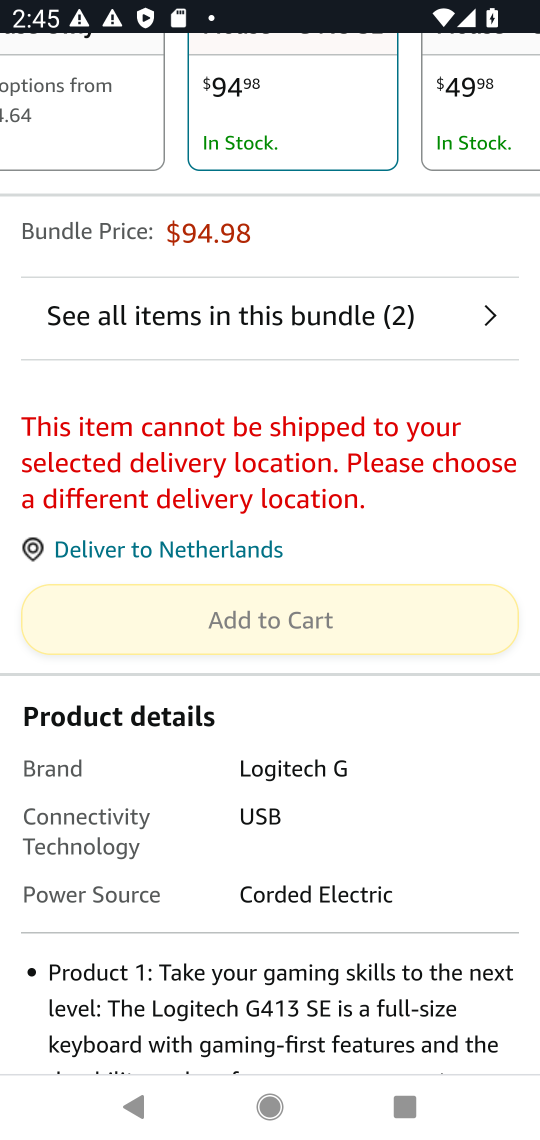
Step 45: click (445, 104)
Your task to perform on an android device: Add "logitech g502" to the cart on amazon, then select checkout. Image 46: 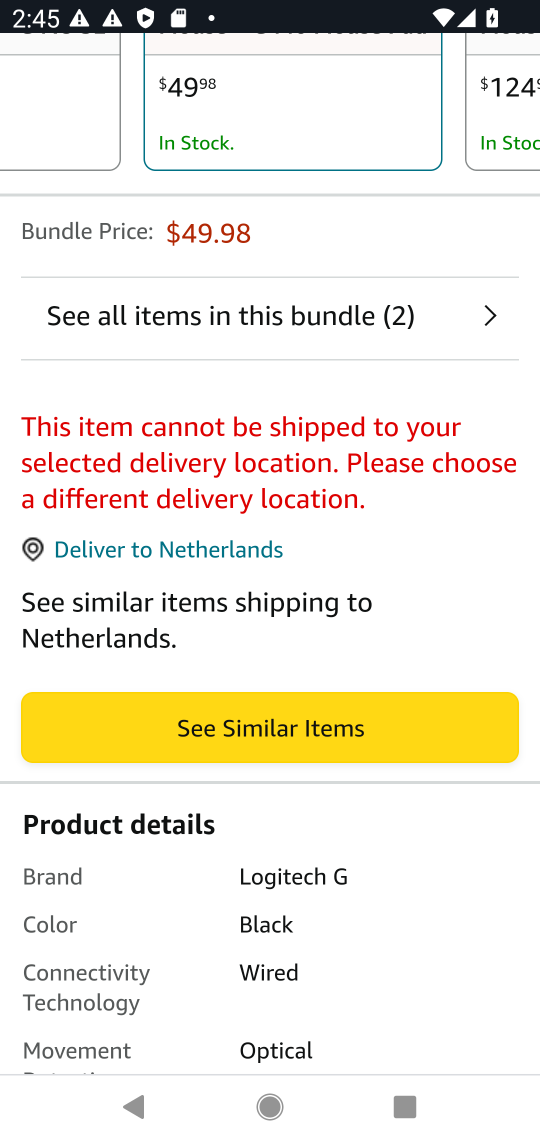
Step 46: task complete